Your task to perform on an android device: Do I have any events today? Image 0: 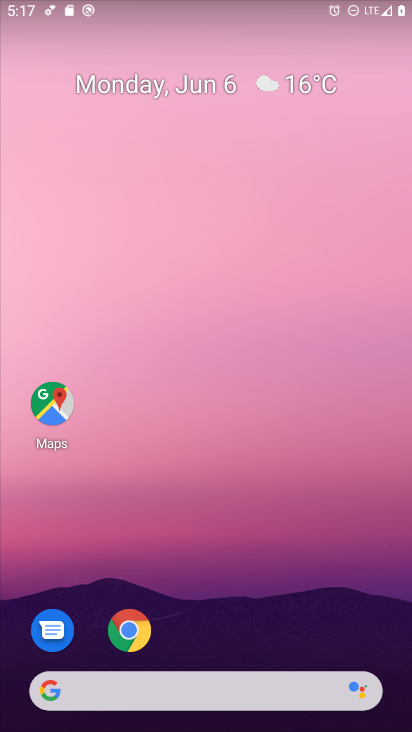
Step 0: click (169, 7)
Your task to perform on an android device: Do I have any events today? Image 1: 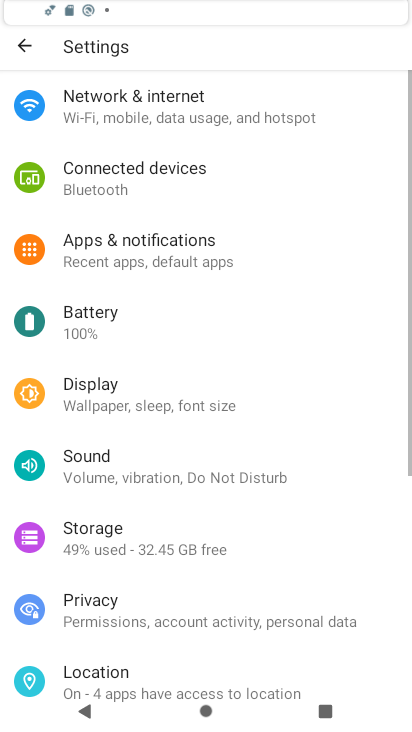
Step 1: press home button
Your task to perform on an android device: Do I have any events today? Image 2: 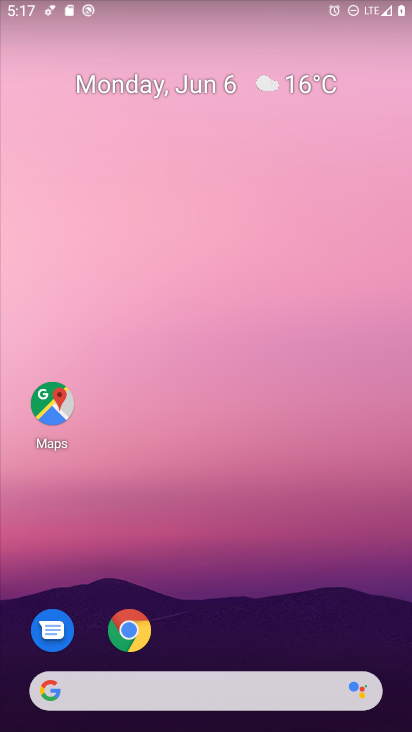
Step 2: click (154, 84)
Your task to perform on an android device: Do I have any events today? Image 3: 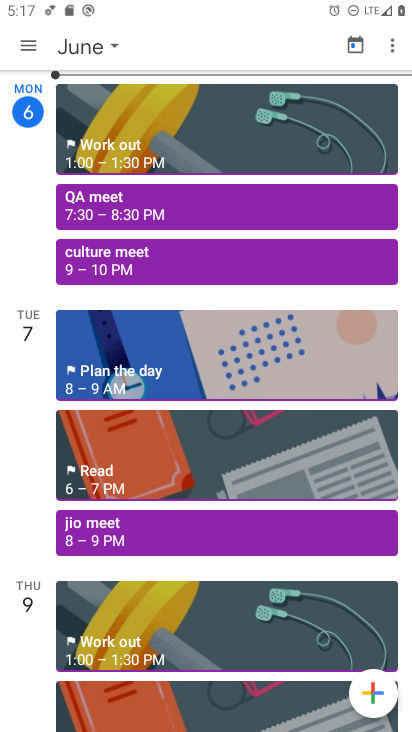
Step 3: task complete